Your task to perform on an android device: turn off notifications settings in the gmail app Image 0: 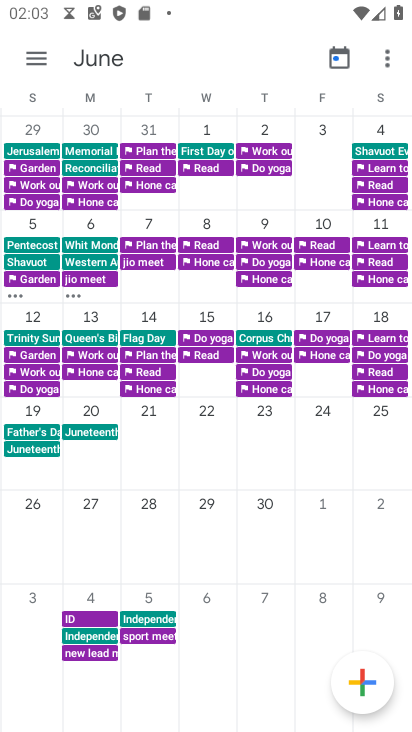
Step 0: task complete